Your task to perform on an android device: View the shopping cart on amazon. Image 0: 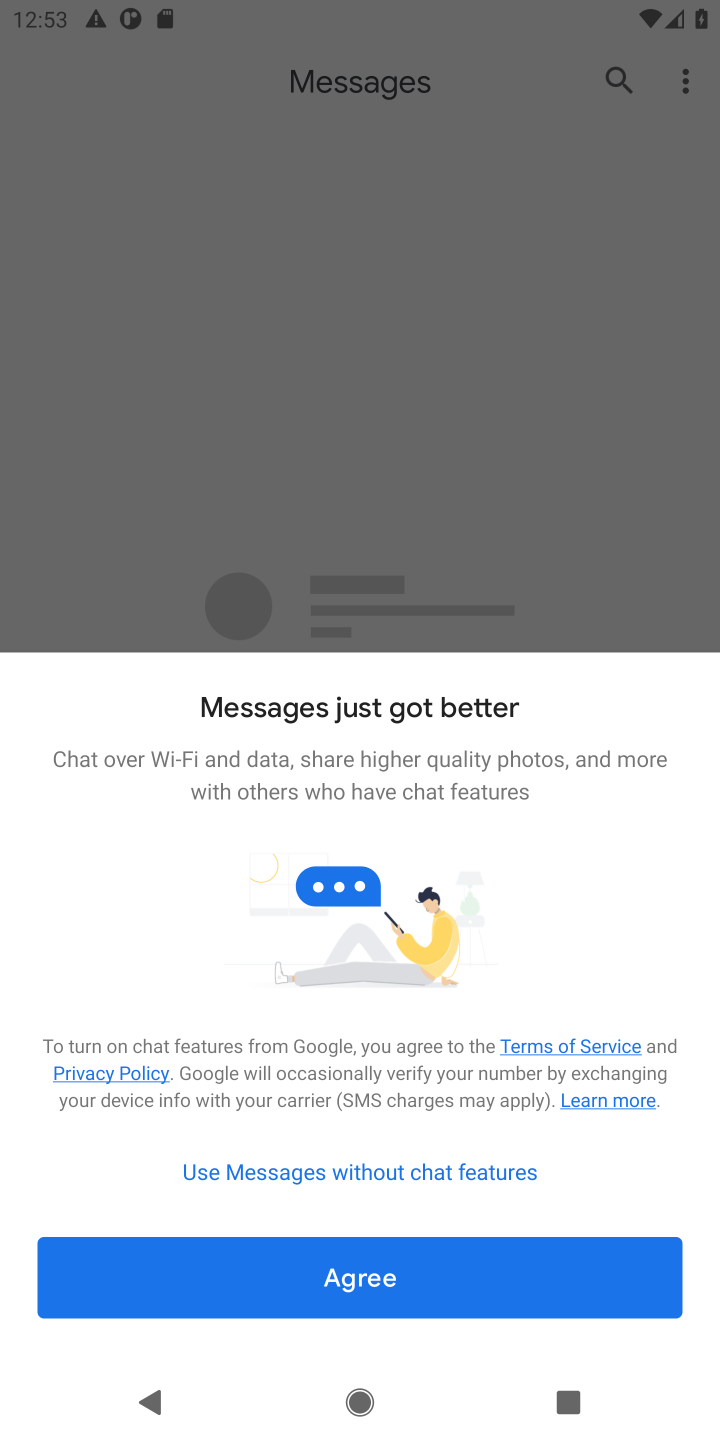
Step 0: press home button
Your task to perform on an android device: View the shopping cart on amazon. Image 1: 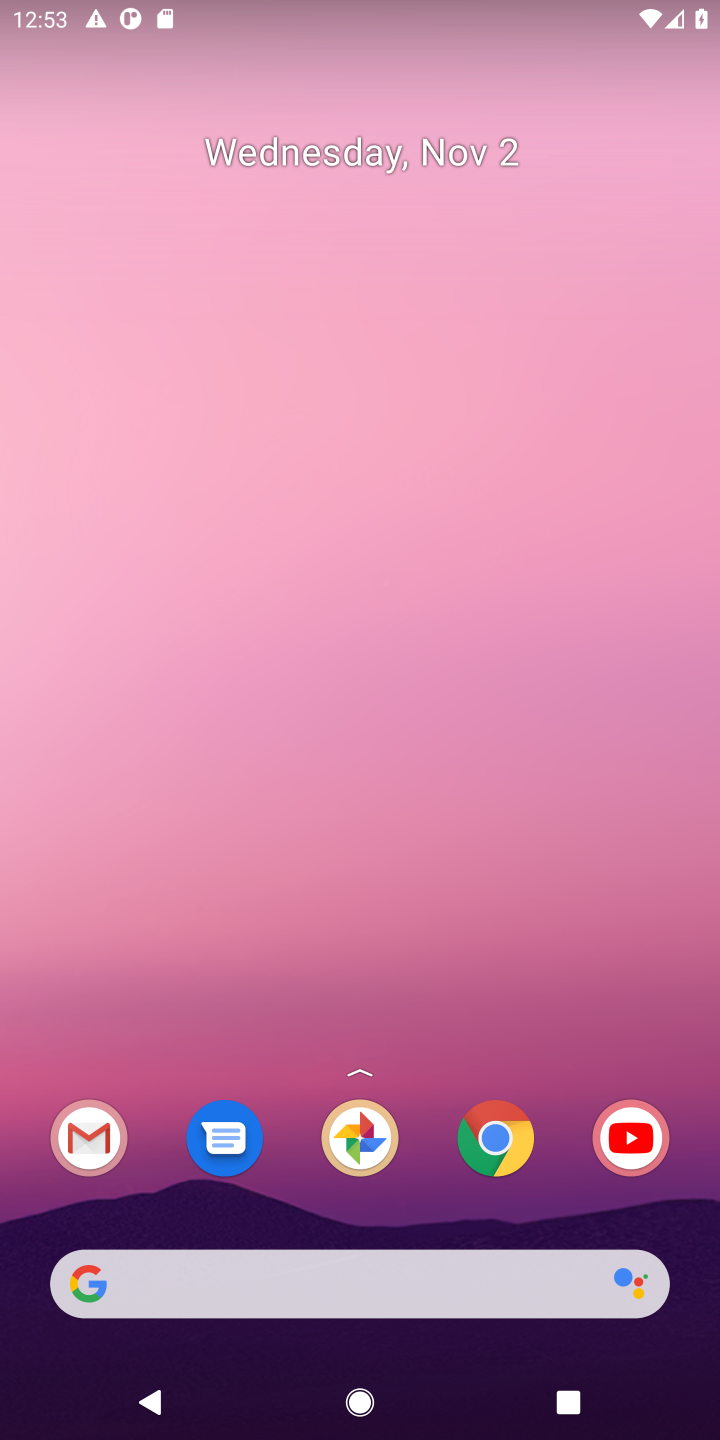
Step 1: click (499, 1131)
Your task to perform on an android device: View the shopping cart on amazon. Image 2: 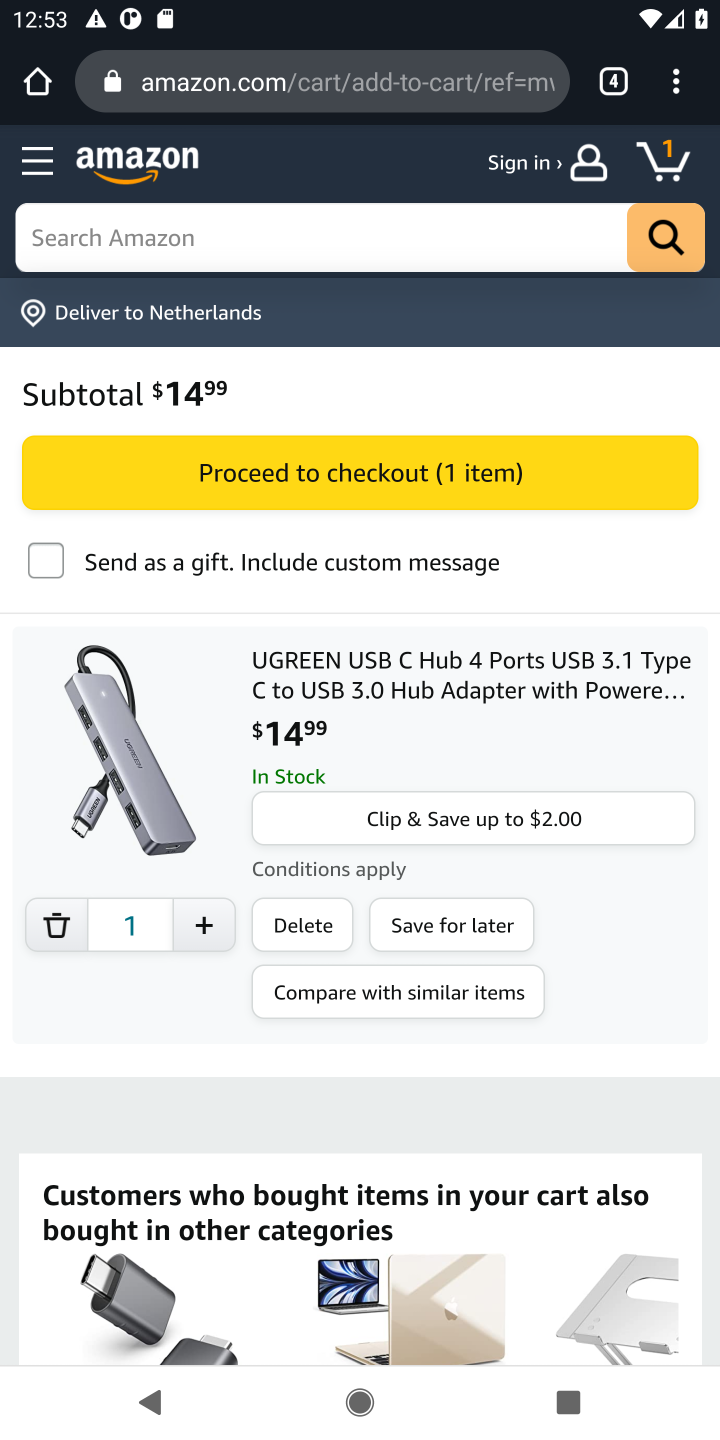
Step 2: task complete